Your task to perform on an android device: turn on notifications settings in the gmail app Image 0: 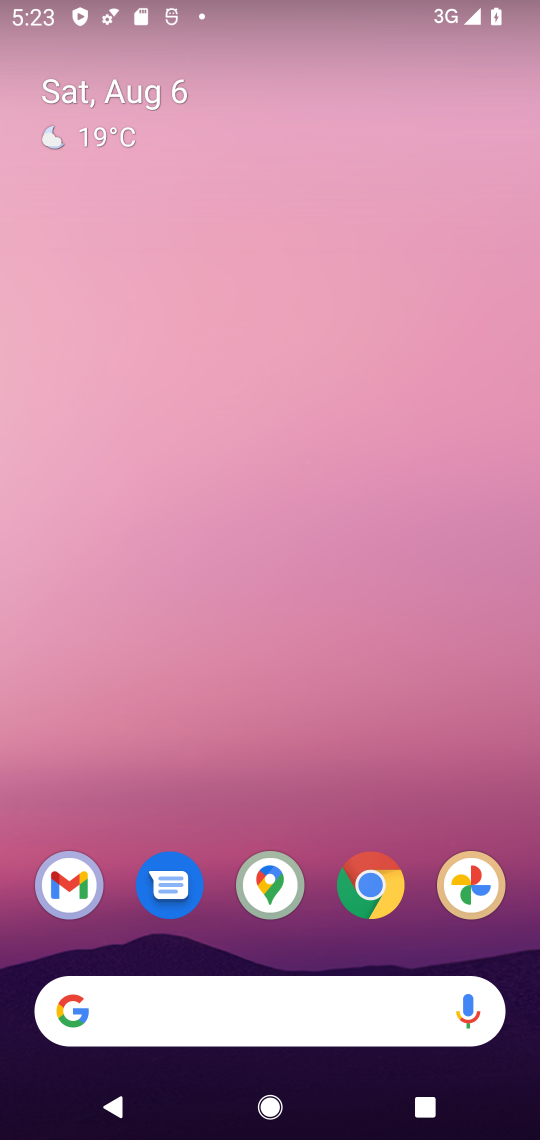
Step 0: drag from (415, 912) to (186, 54)
Your task to perform on an android device: turn on notifications settings in the gmail app Image 1: 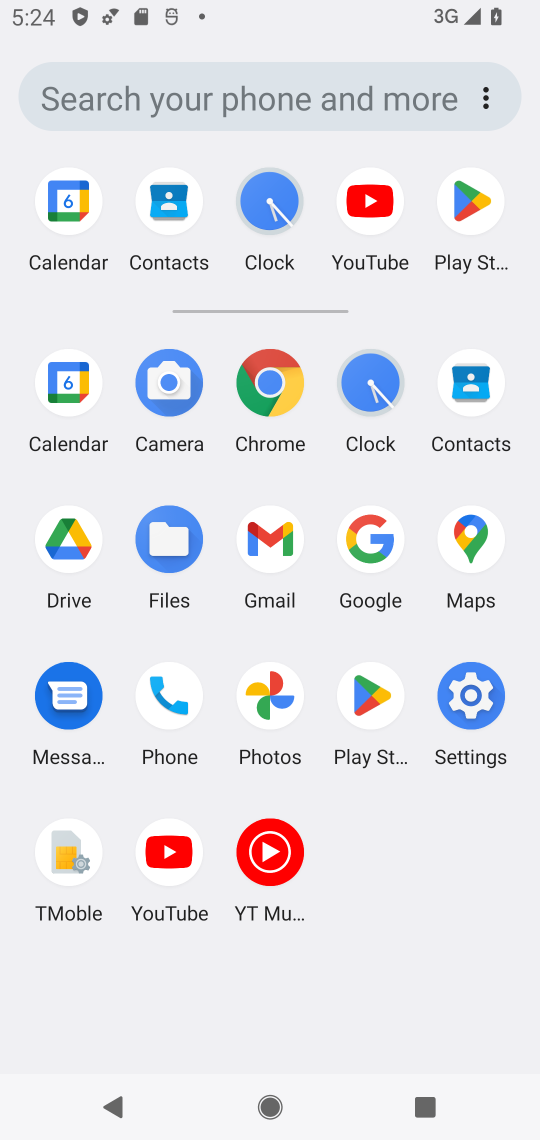
Step 1: click (255, 566)
Your task to perform on an android device: turn on notifications settings in the gmail app Image 2: 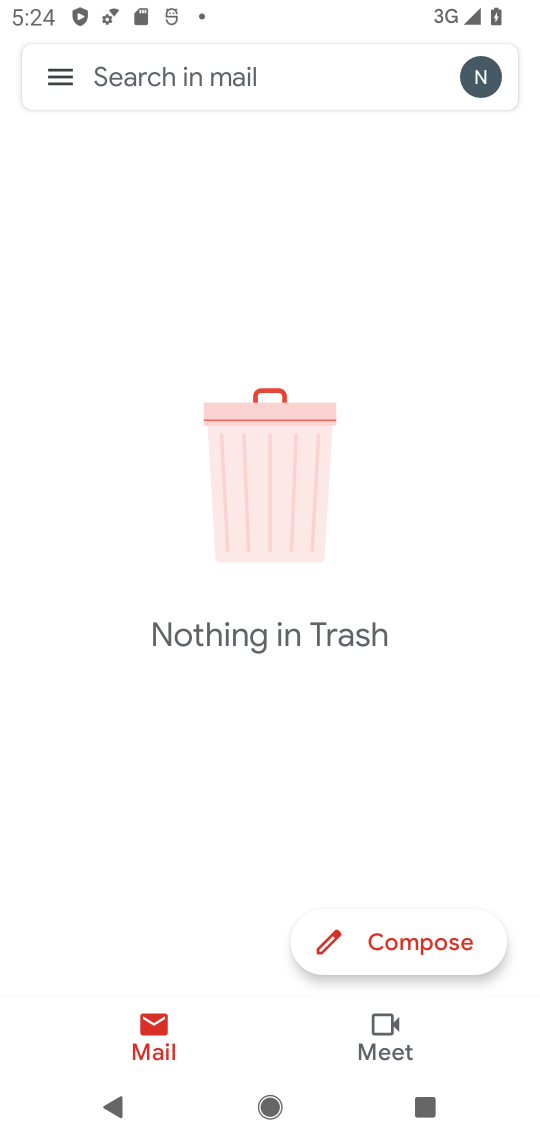
Step 2: click (46, 66)
Your task to perform on an android device: turn on notifications settings in the gmail app Image 3: 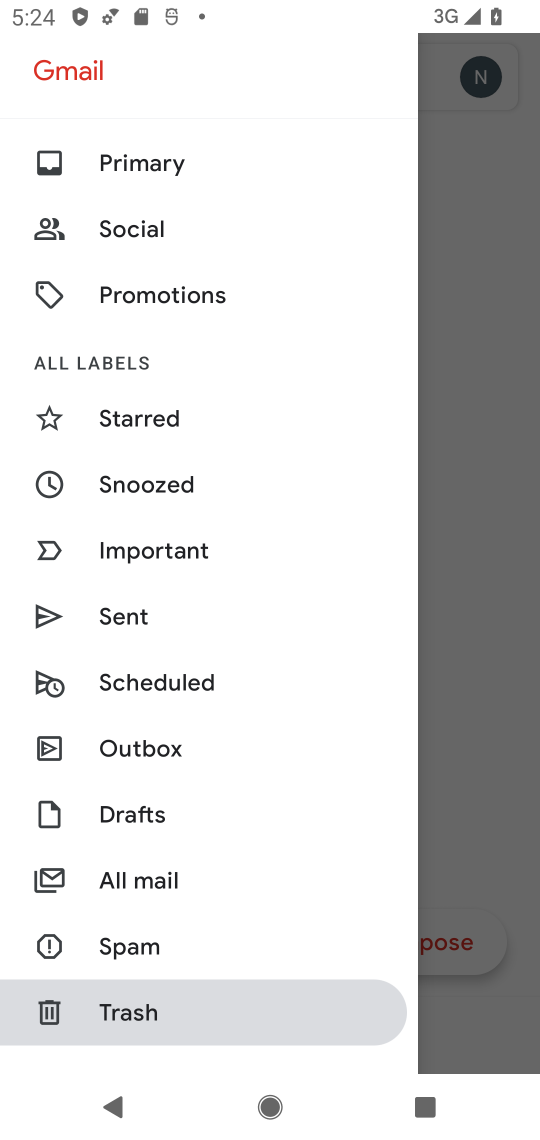
Step 3: drag from (198, 927) to (239, 295)
Your task to perform on an android device: turn on notifications settings in the gmail app Image 4: 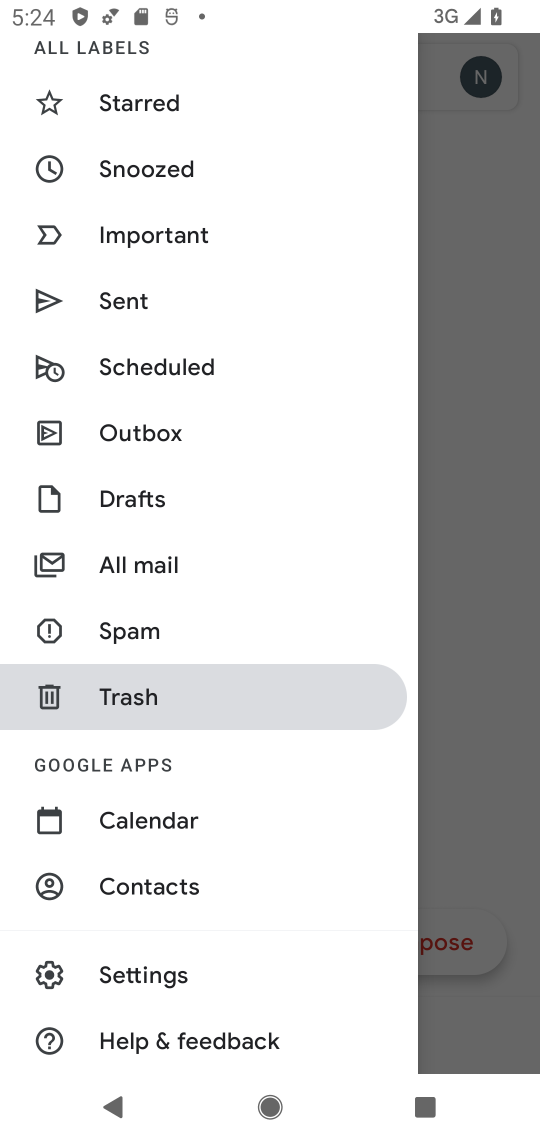
Step 4: drag from (247, 339) to (288, 1110)
Your task to perform on an android device: turn on notifications settings in the gmail app Image 5: 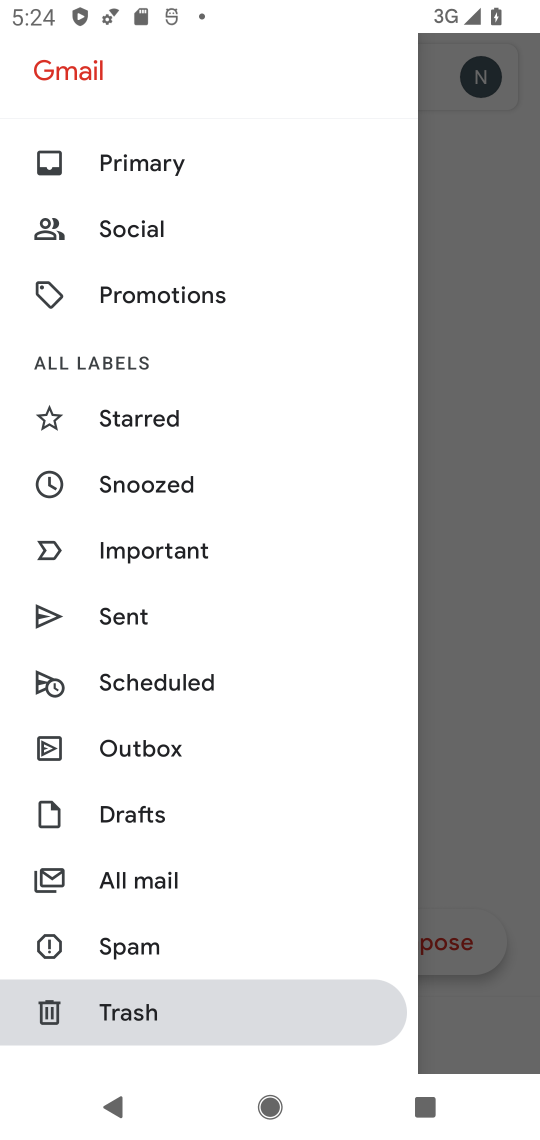
Step 5: drag from (159, 937) to (270, 88)
Your task to perform on an android device: turn on notifications settings in the gmail app Image 6: 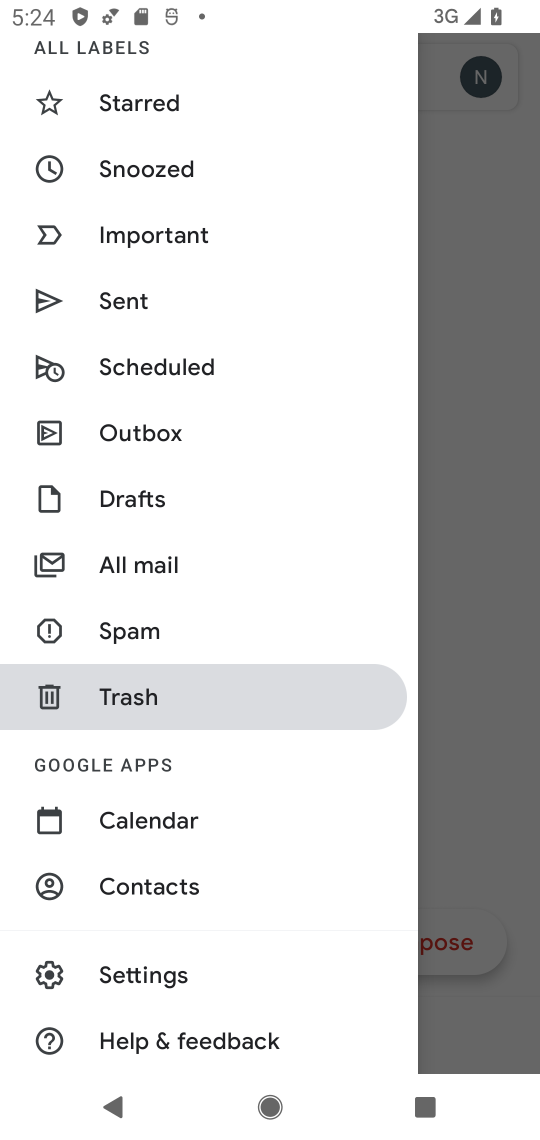
Step 6: click (159, 977)
Your task to perform on an android device: turn on notifications settings in the gmail app Image 7: 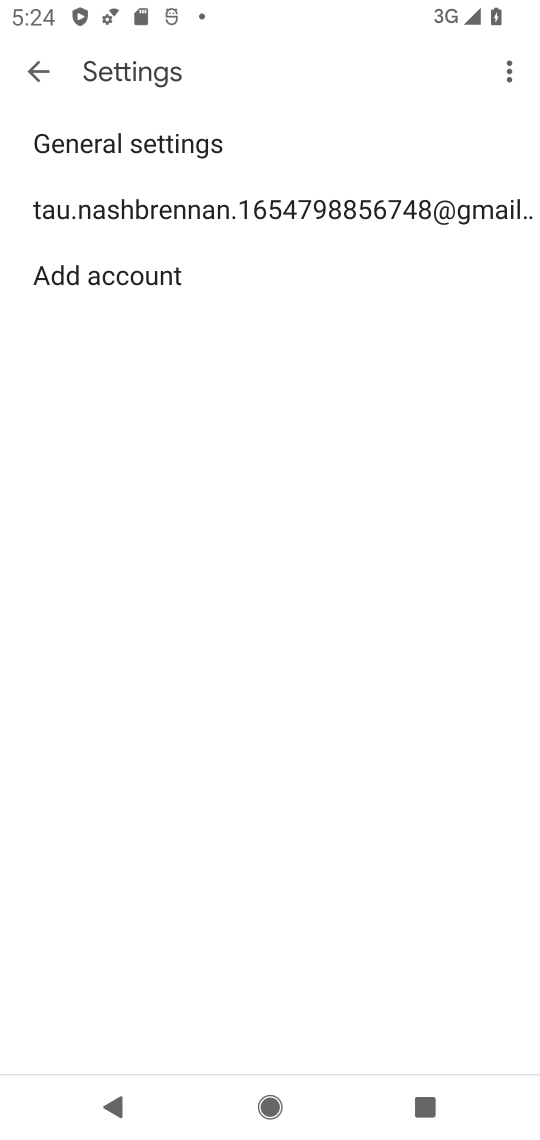
Step 7: click (419, 197)
Your task to perform on an android device: turn on notifications settings in the gmail app Image 8: 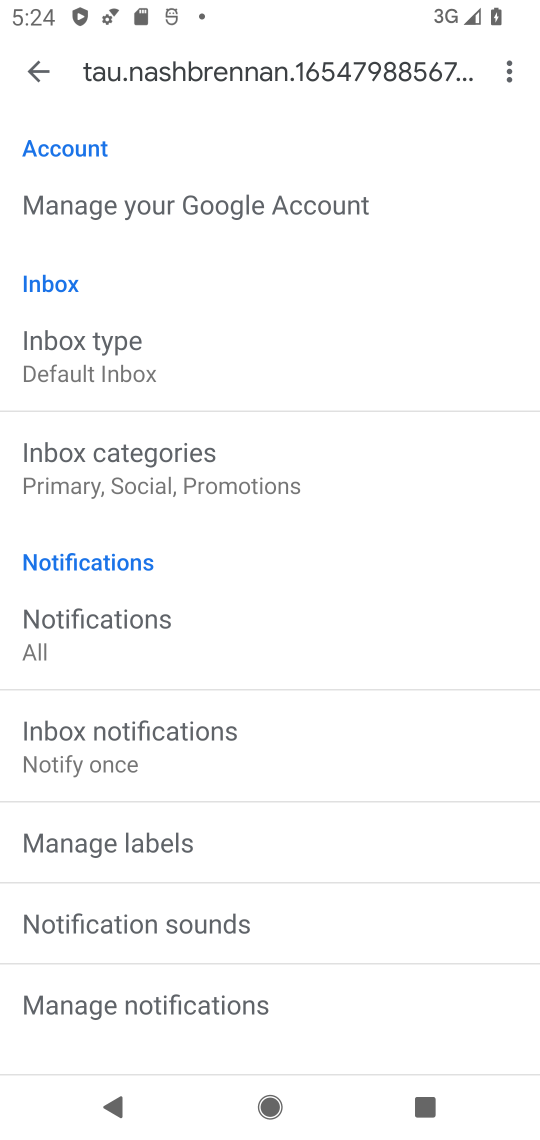
Step 8: click (146, 632)
Your task to perform on an android device: turn on notifications settings in the gmail app Image 9: 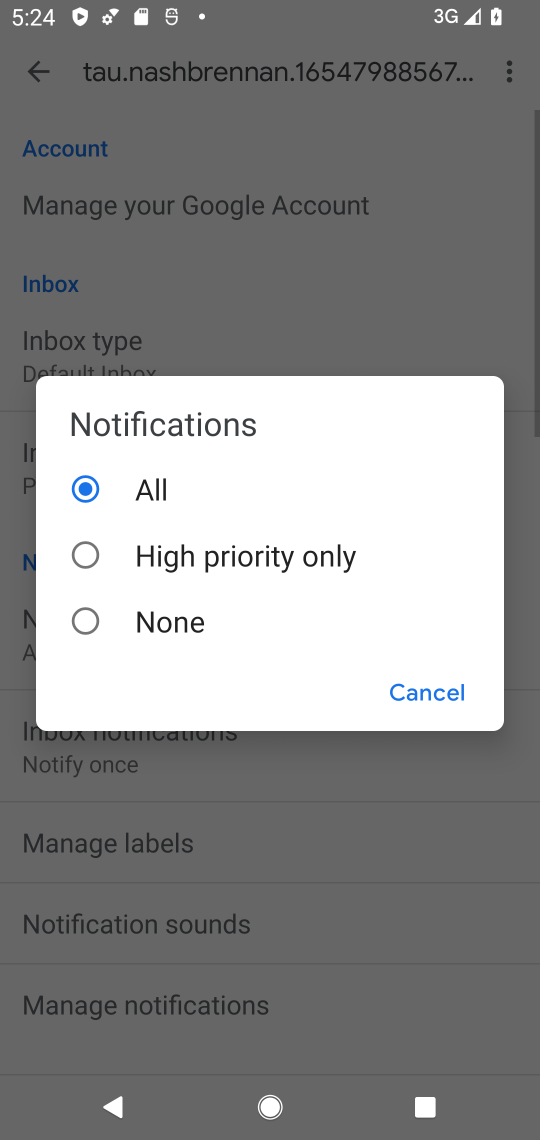
Step 9: click (141, 509)
Your task to perform on an android device: turn on notifications settings in the gmail app Image 10: 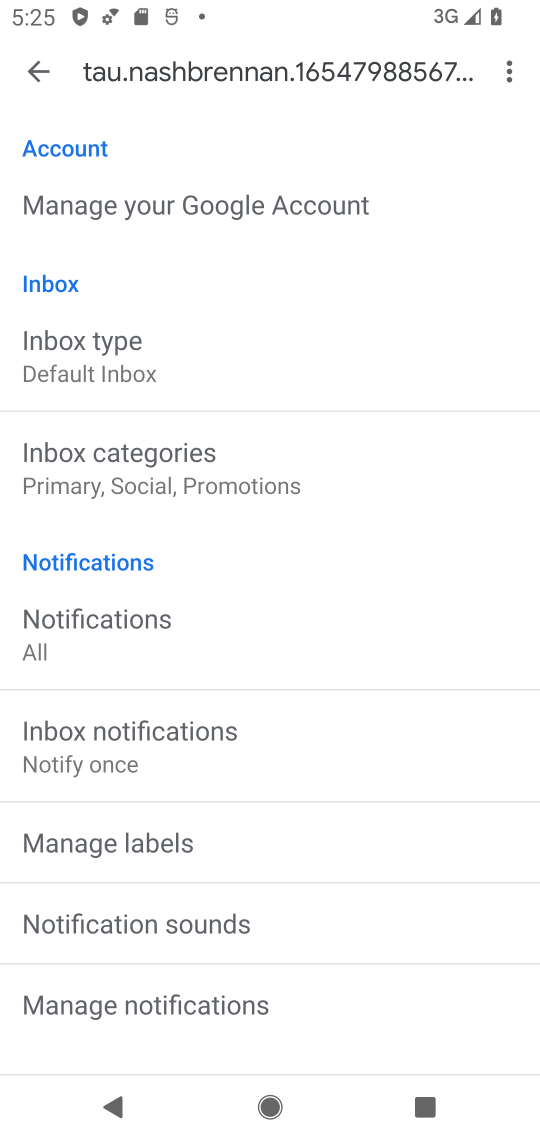
Step 10: task complete